Your task to perform on an android device: change text size in settings app Image 0: 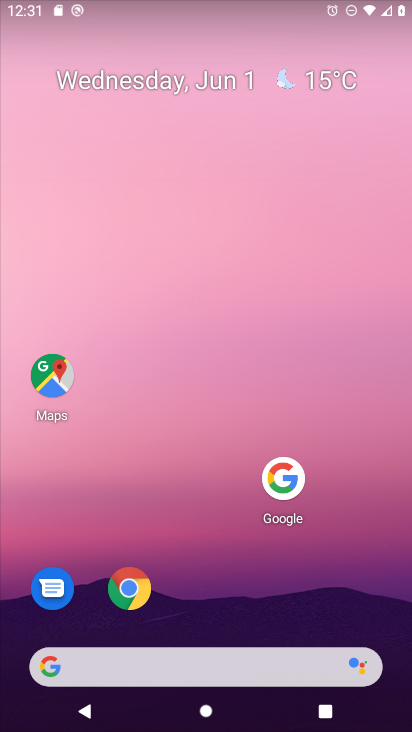
Step 0: press home button
Your task to perform on an android device: change text size in settings app Image 1: 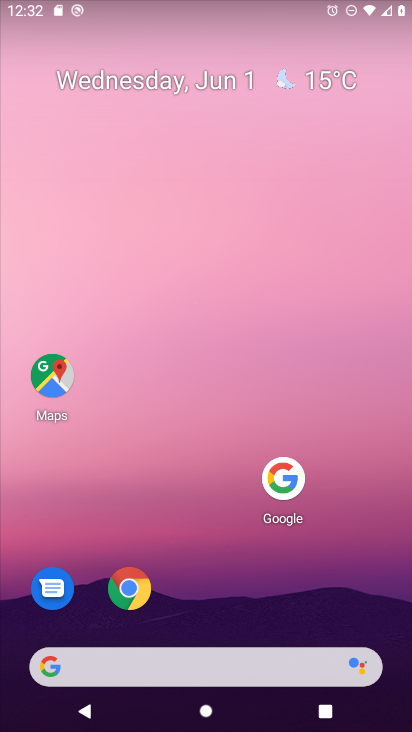
Step 1: drag from (183, 664) to (232, 96)
Your task to perform on an android device: change text size in settings app Image 2: 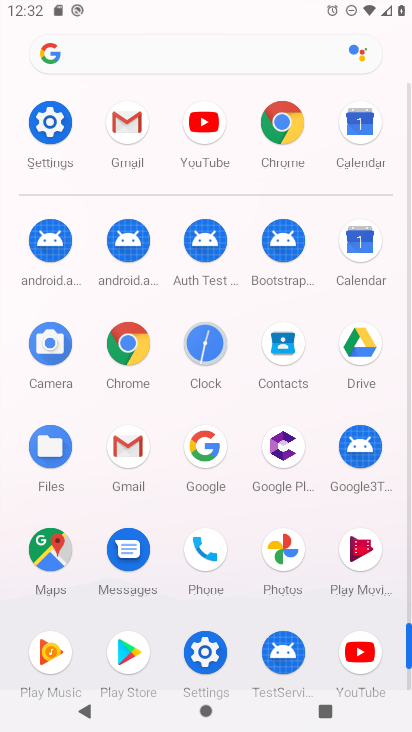
Step 2: click (43, 137)
Your task to perform on an android device: change text size in settings app Image 3: 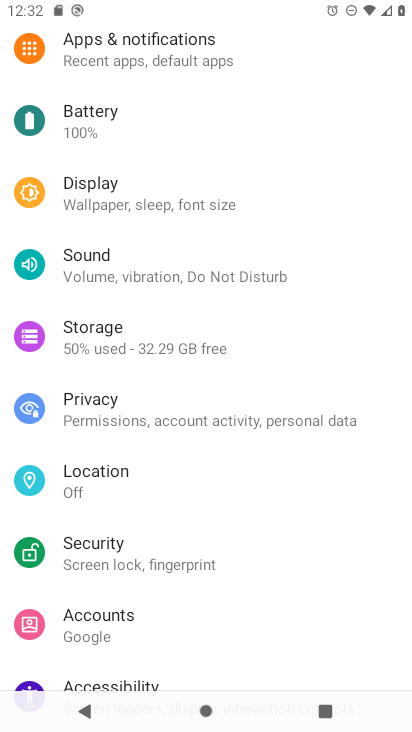
Step 3: click (201, 202)
Your task to perform on an android device: change text size in settings app Image 4: 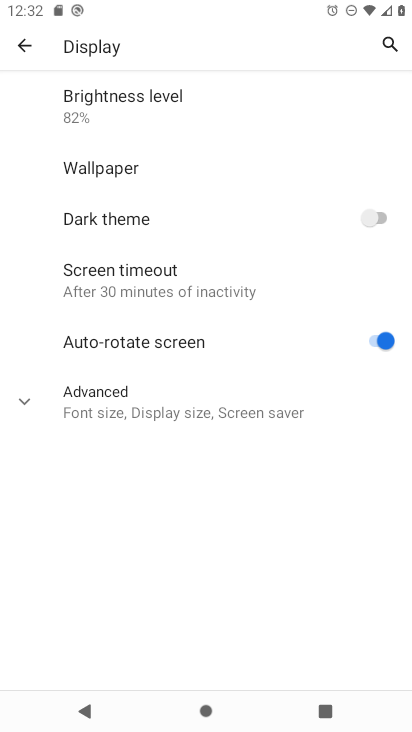
Step 4: click (104, 395)
Your task to perform on an android device: change text size in settings app Image 5: 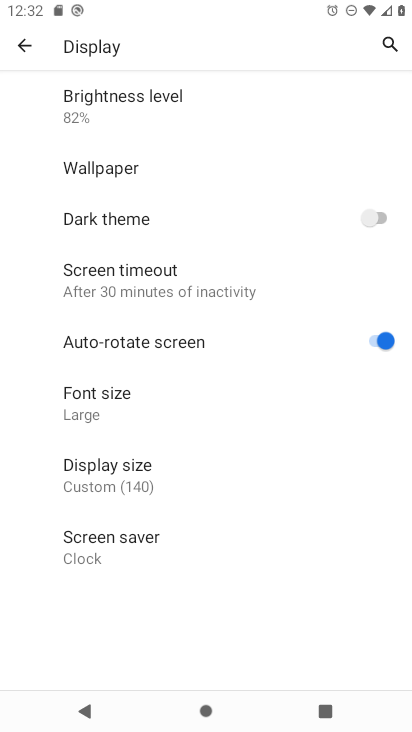
Step 5: click (108, 393)
Your task to perform on an android device: change text size in settings app Image 6: 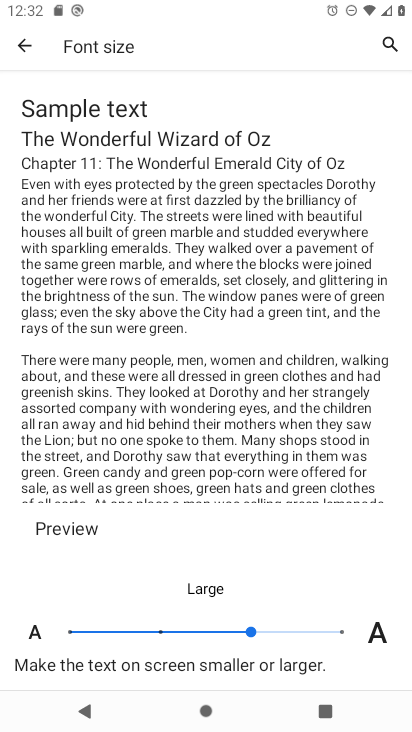
Step 6: click (160, 632)
Your task to perform on an android device: change text size in settings app Image 7: 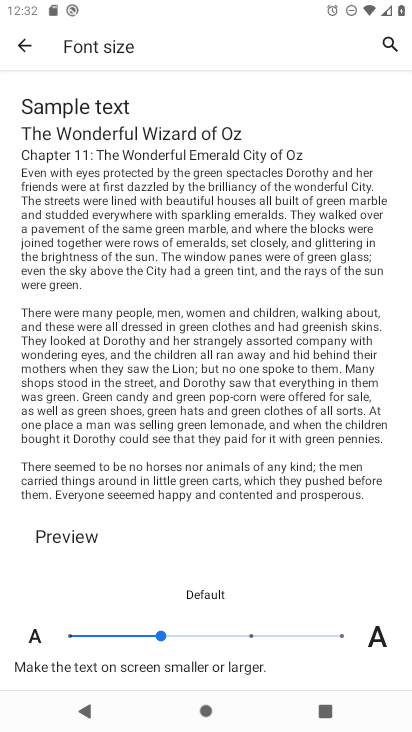
Step 7: task complete